Your task to perform on an android device: change the clock display to digital Image 0: 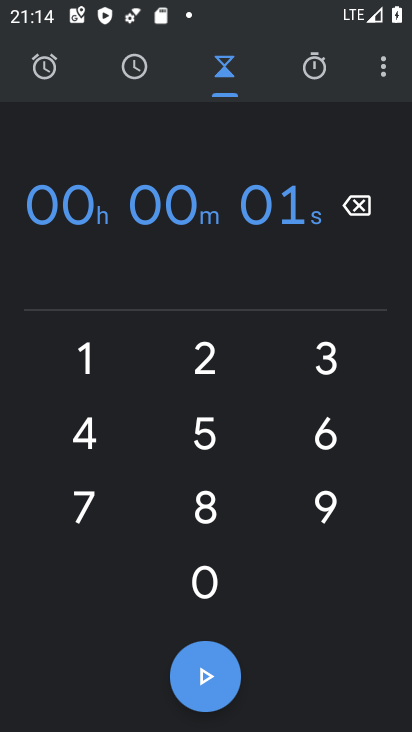
Step 0: click (381, 68)
Your task to perform on an android device: change the clock display to digital Image 1: 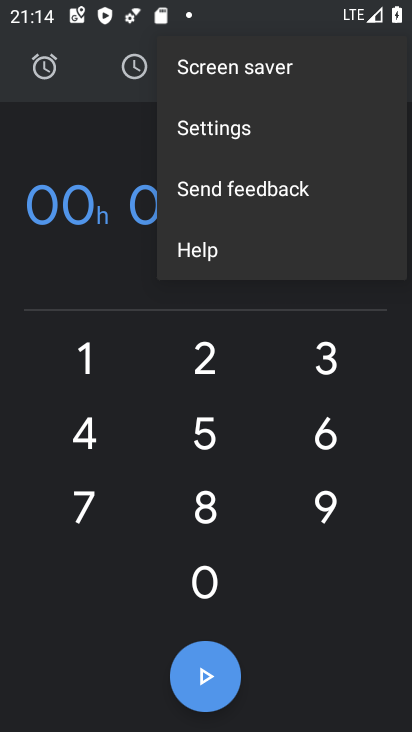
Step 1: click (298, 126)
Your task to perform on an android device: change the clock display to digital Image 2: 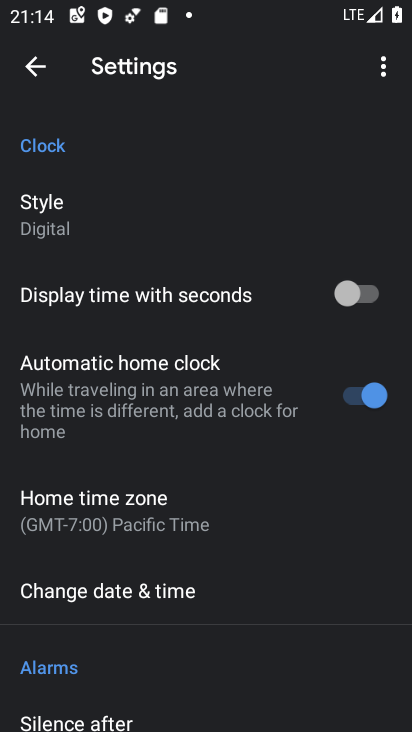
Step 2: click (64, 218)
Your task to perform on an android device: change the clock display to digital Image 3: 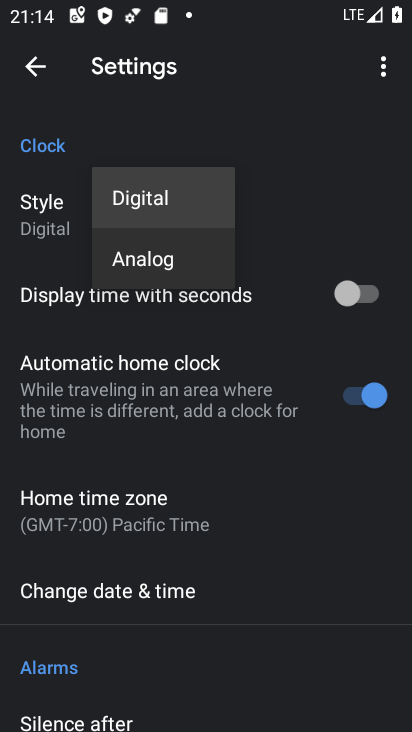
Step 3: click (122, 190)
Your task to perform on an android device: change the clock display to digital Image 4: 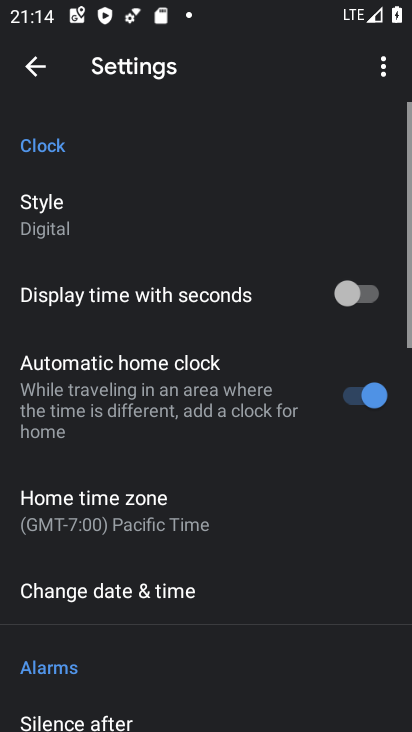
Step 4: click (40, 69)
Your task to perform on an android device: change the clock display to digital Image 5: 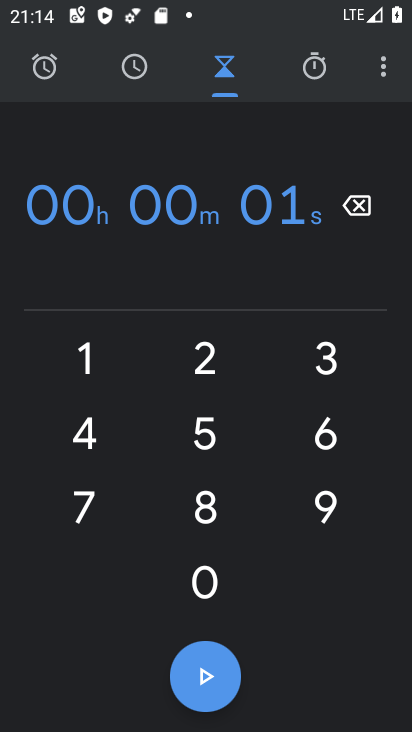
Step 5: click (136, 64)
Your task to perform on an android device: change the clock display to digital Image 6: 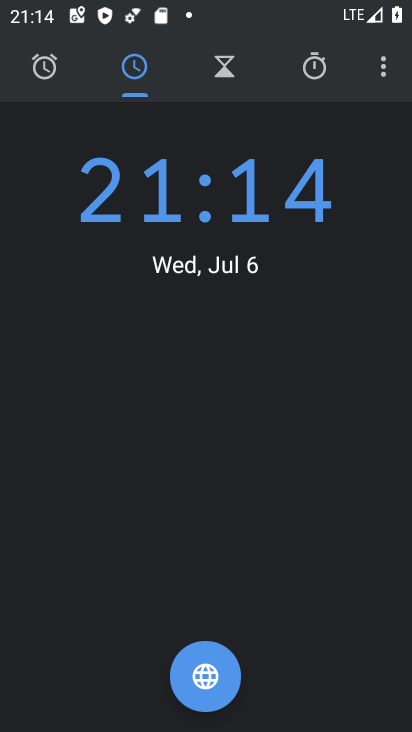
Step 6: task complete